Your task to perform on an android device: Go to location settings Image 0: 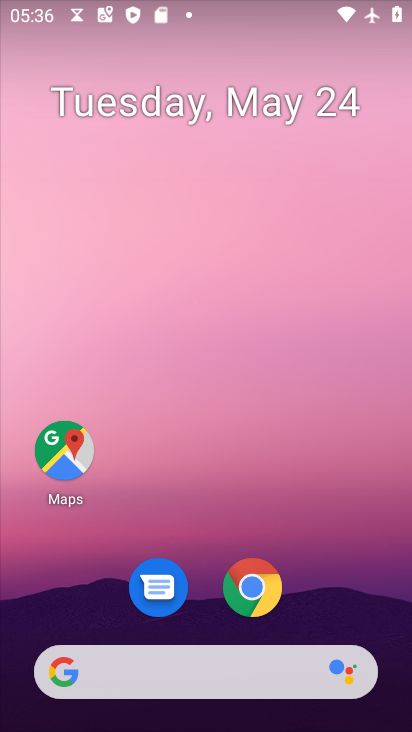
Step 0: drag from (341, 590) to (209, 50)
Your task to perform on an android device: Go to location settings Image 1: 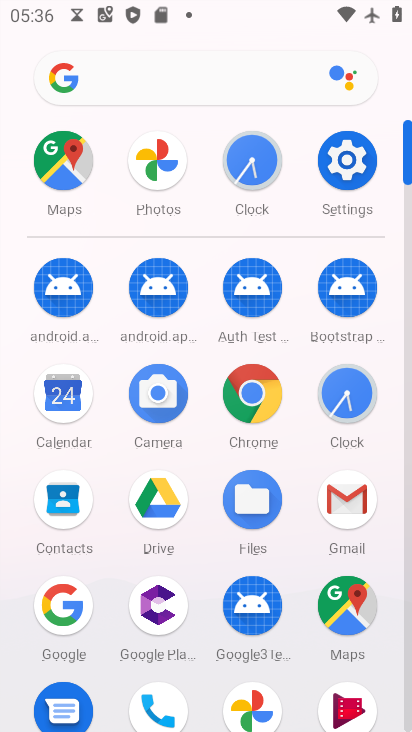
Step 1: click (346, 166)
Your task to perform on an android device: Go to location settings Image 2: 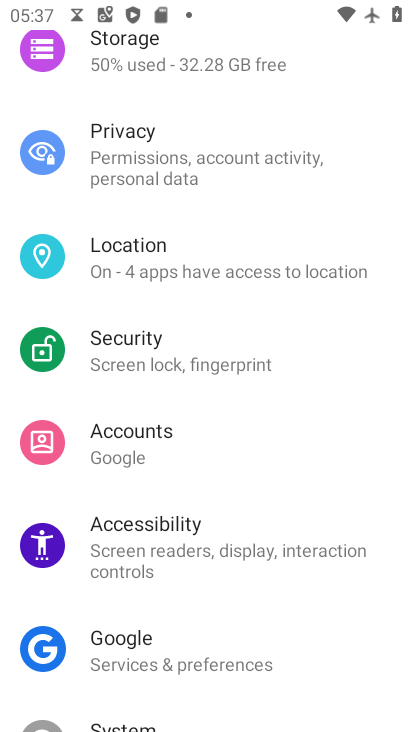
Step 2: click (197, 264)
Your task to perform on an android device: Go to location settings Image 3: 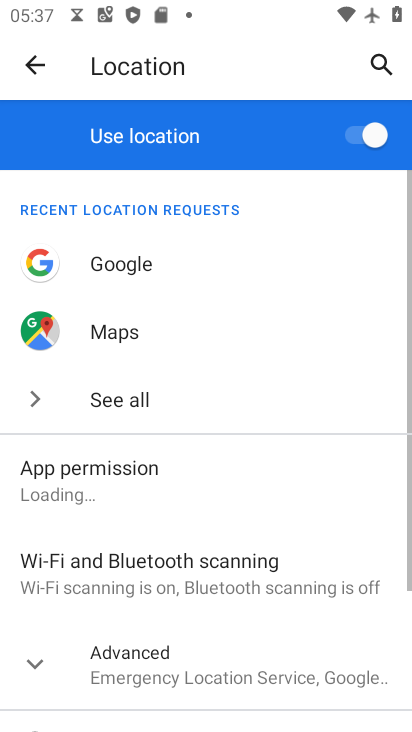
Step 3: task complete